Your task to perform on an android device: What is the recent news? Image 0: 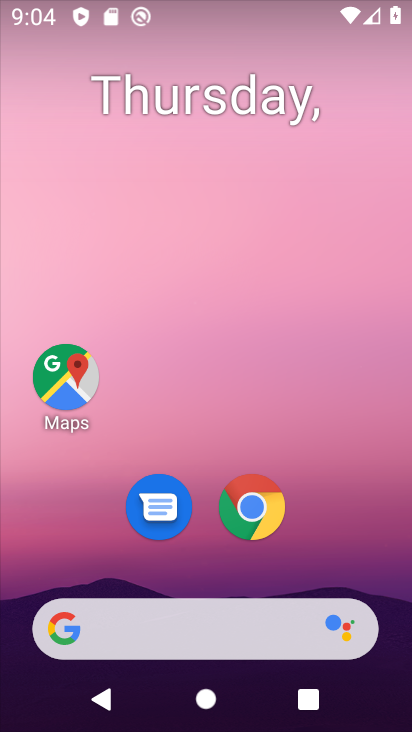
Step 0: drag from (234, 585) to (220, 14)
Your task to perform on an android device: What is the recent news? Image 1: 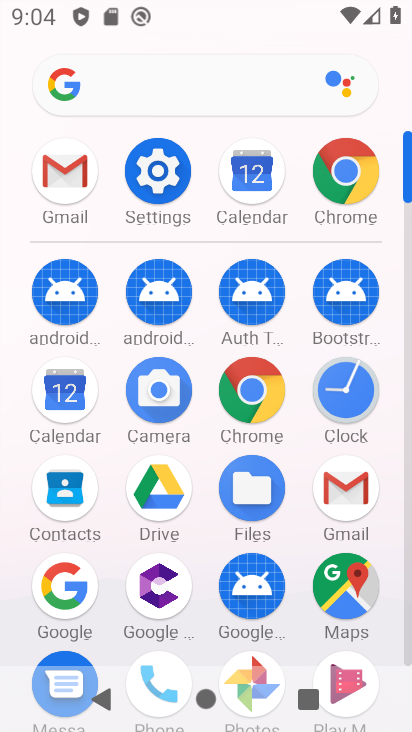
Step 1: click (174, 87)
Your task to perform on an android device: What is the recent news? Image 2: 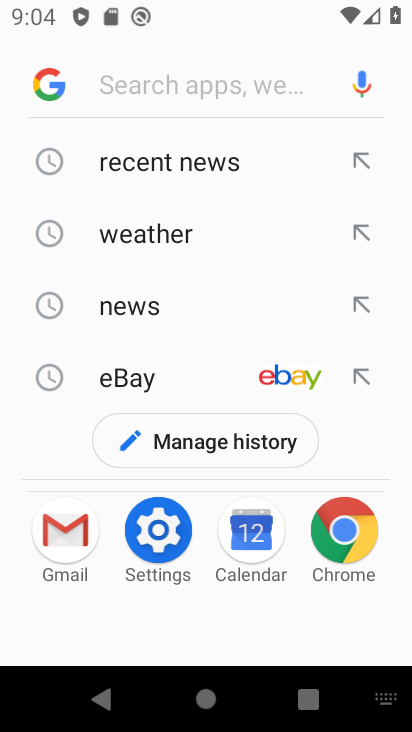
Step 2: click (171, 172)
Your task to perform on an android device: What is the recent news? Image 3: 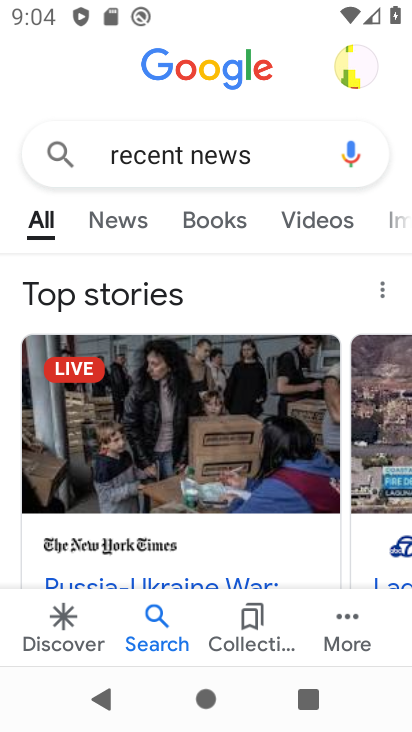
Step 3: task complete